Your task to perform on an android device: Go to ESPN.com Image 0: 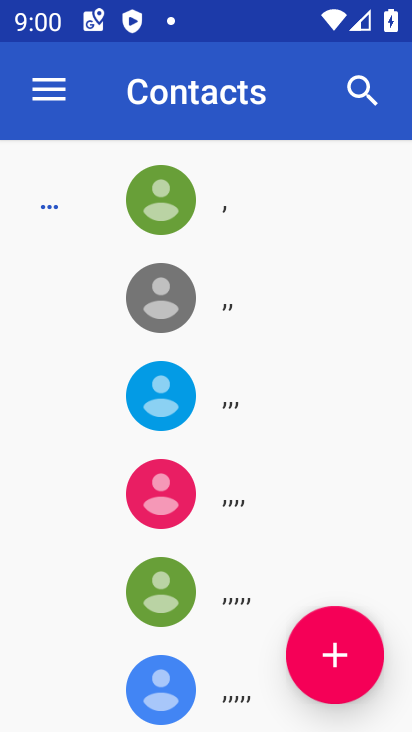
Step 0: press home button
Your task to perform on an android device: Go to ESPN.com Image 1: 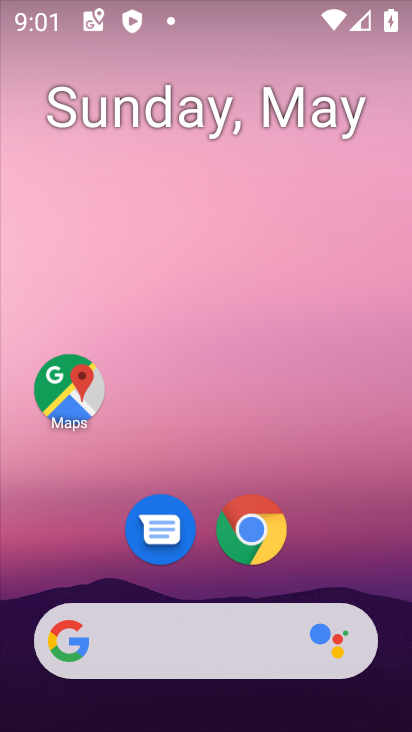
Step 1: click (241, 629)
Your task to perform on an android device: Go to ESPN.com Image 2: 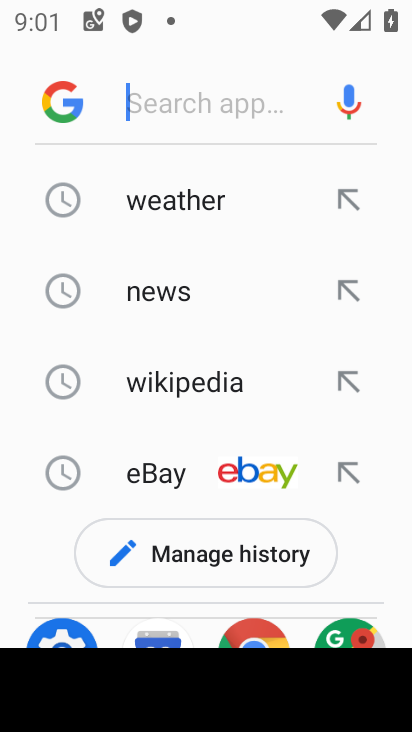
Step 2: type "espn.com"
Your task to perform on an android device: Go to ESPN.com Image 3: 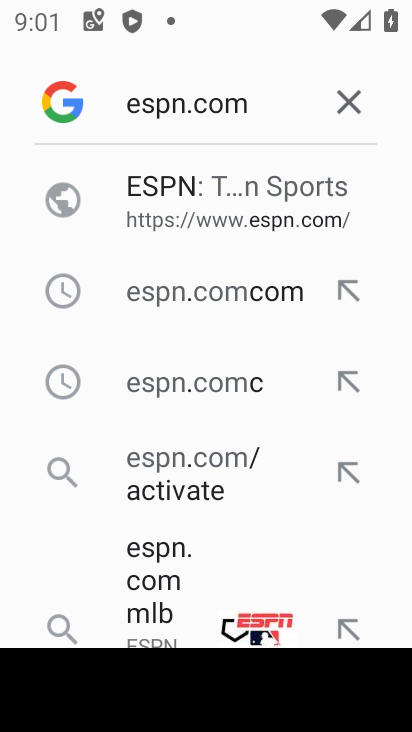
Step 3: click (180, 175)
Your task to perform on an android device: Go to ESPN.com Image 4: 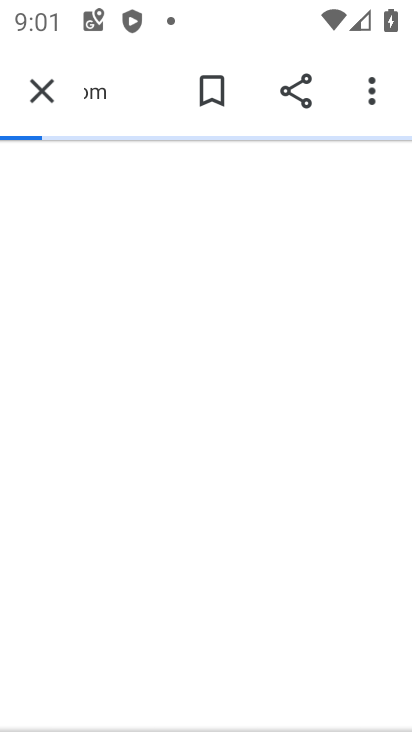
Step 4: task complete